Your task to perform on an android device: Open Google Image 0: 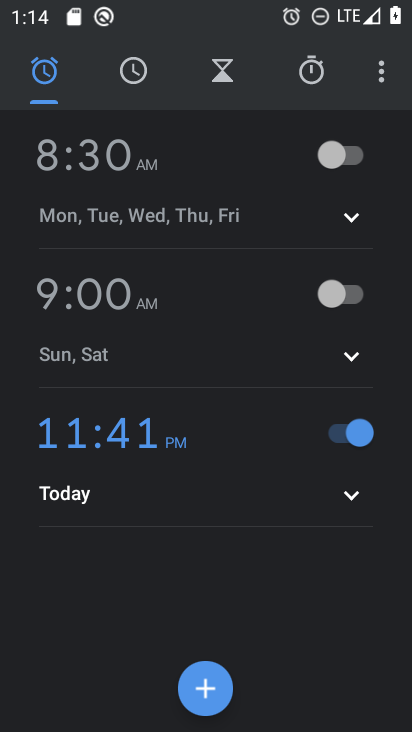
Step 0: press home button
Your task to perform on an android device: Open Google Image 1: 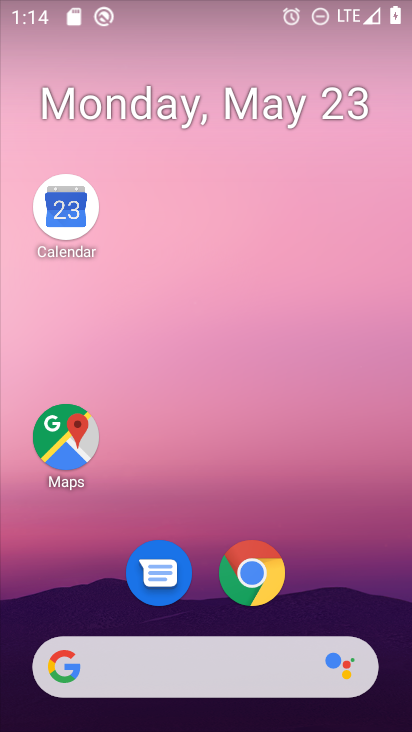
Step 1: drag from (316, 602) to (277, 134)
Your task to perform on an android device: Open Google Image 2: 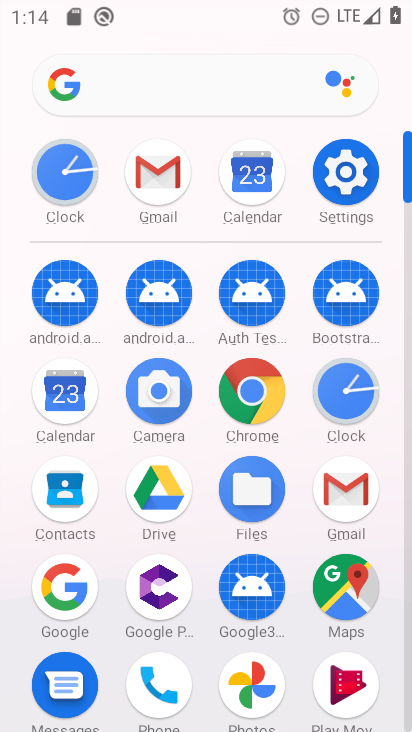
Step 2: click (70, 592)
Your task to perform on an android device: Open Google Image 3: 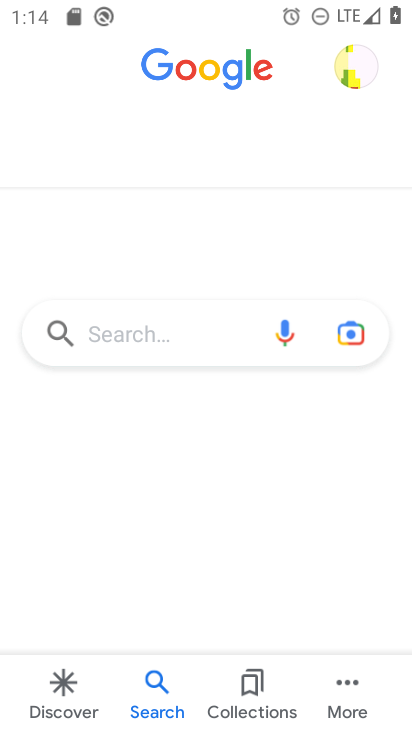
Step 3: task complete